Your task to perform on an android device: turn off wifi Image 0: 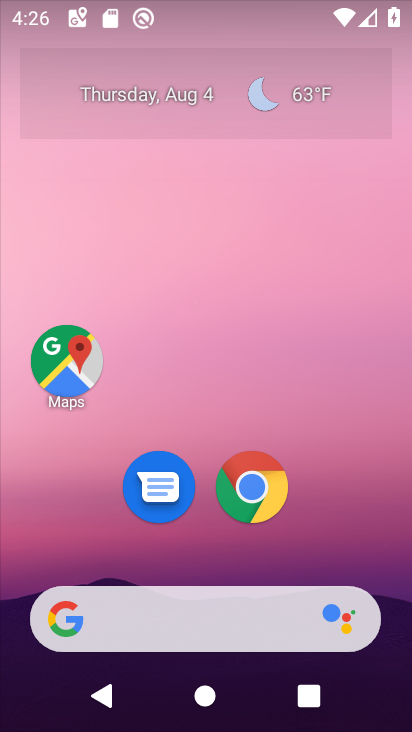
Step 0: drag from (104, 18) to (164, 629)
Your task to perform on an android device: turn off wifi Image 1: 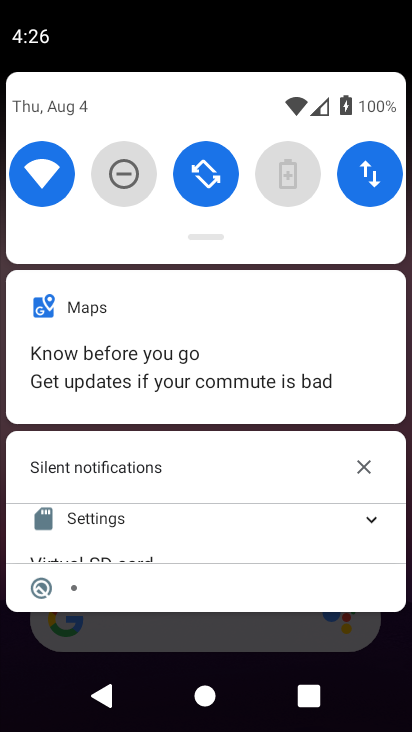
Step 1: click (31, 217)
Your task to perform on an android device: turn off wifi Image 2: 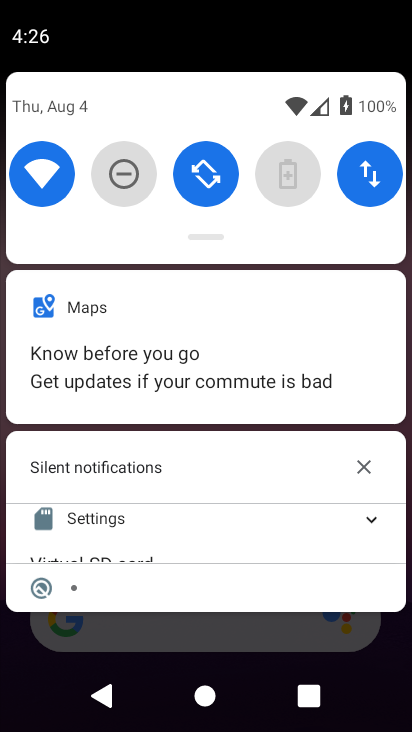
Step 2: click (64, 182)
Your task to perform on an android device: turn off wifi Image 3: 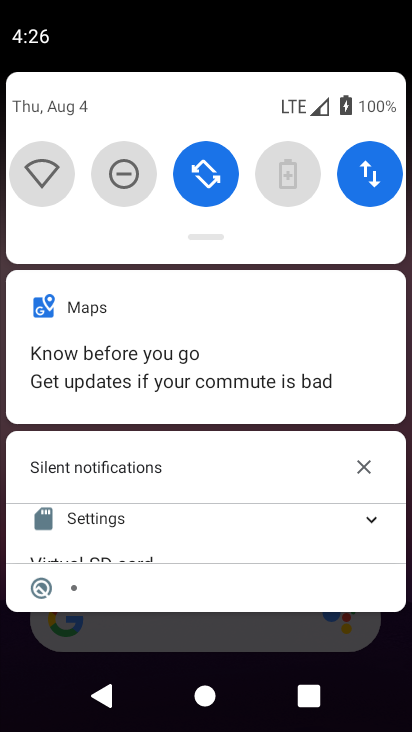
Step 3: task complete